Your task to perform on an android device: change the clock display to analog Image 0: 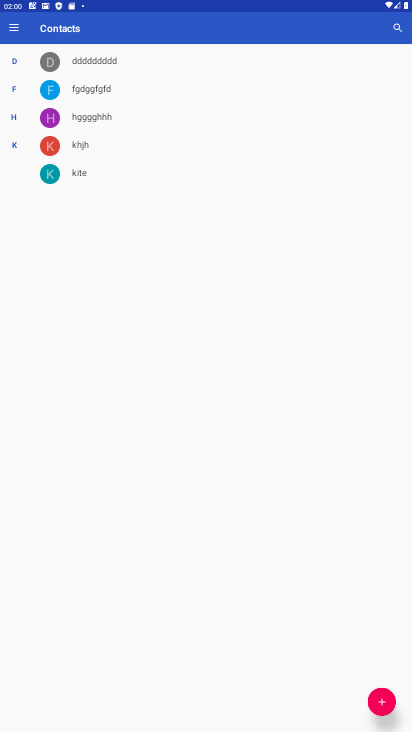
Step 0: press home button
Your task to perform on an android device: change the clock display to analog Image 1: 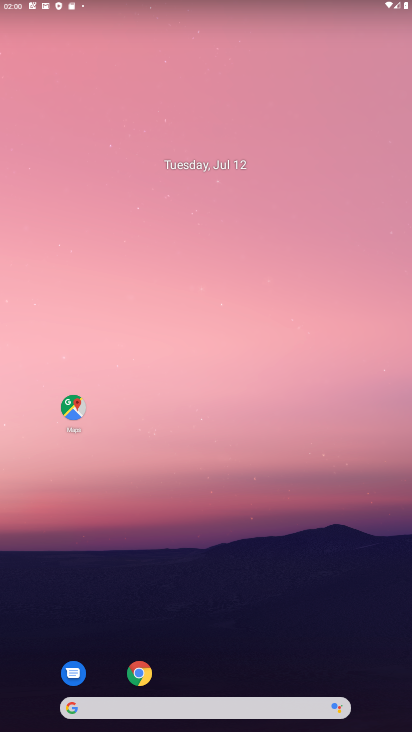
Step 1: drag from (274, 630) to (214, 0)
Your task to perform on an android device: change the clock display to analog Image 2: 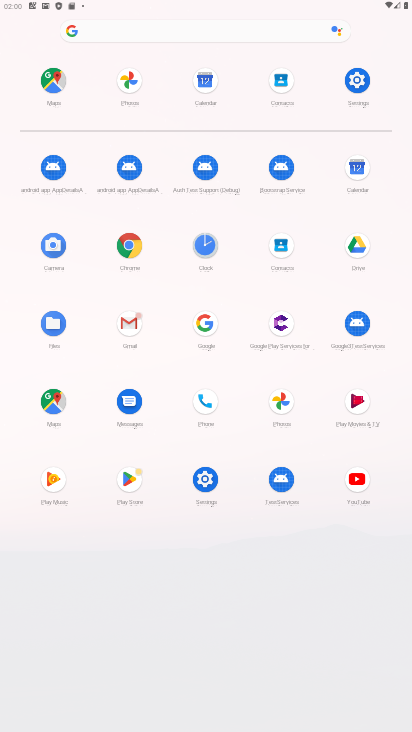
Step 2: click (202, 243)
Your task to perform on an android device: change the clock display to analog Image 3: 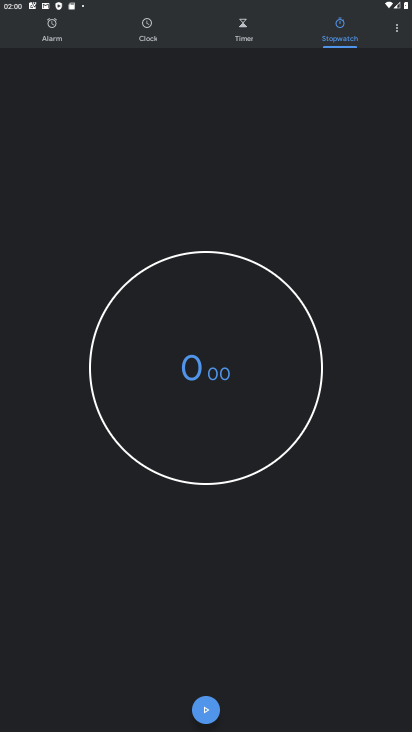
Step 3: click (395, 33)
Your task to perform on an android device: change the clock display to analog Image 4: 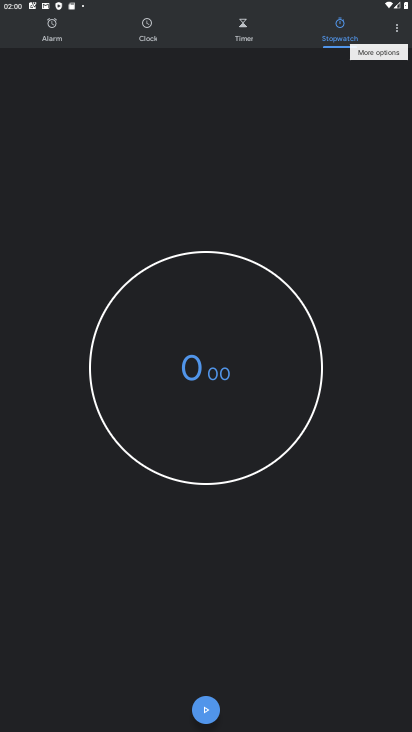
Step 4: click (397, 30)
Your task to perform on an android device: change the clock display to analog Image 5: 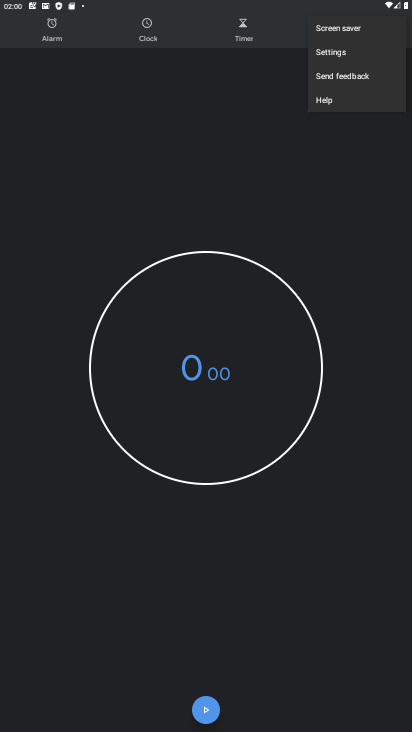
Step 5: click (333, 55)
Your task to perform on an android device: change the clock display to analog Image 6: 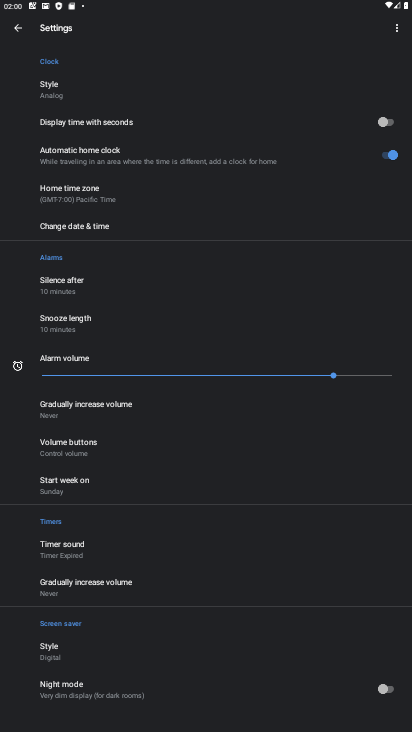
Step 6: click (57, 85)
Your task to perform on an android device: change the clock display to analog Image 7: 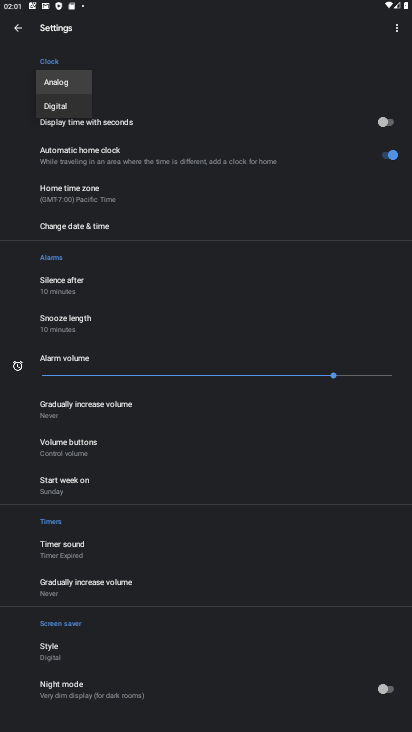
Step 7: task complete